Your task to perform on an android device: turn on bluetooth scan Image 0: 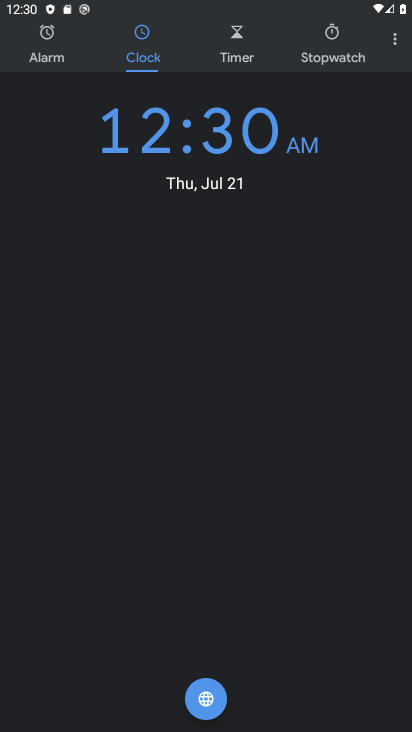
Step 0: press home button
Your task to perform on an android device: turn on bluetooth scan Image 1: 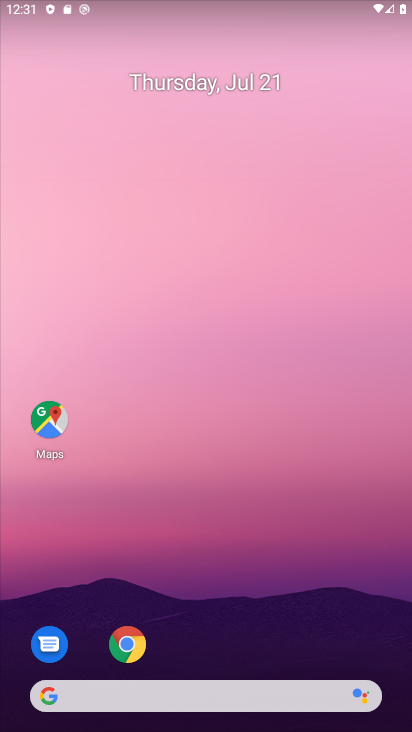
Step 1: drag from (255, 626) to (384, 4)
Your task to perform on an android device: turn on bluetooth scan Image 2: 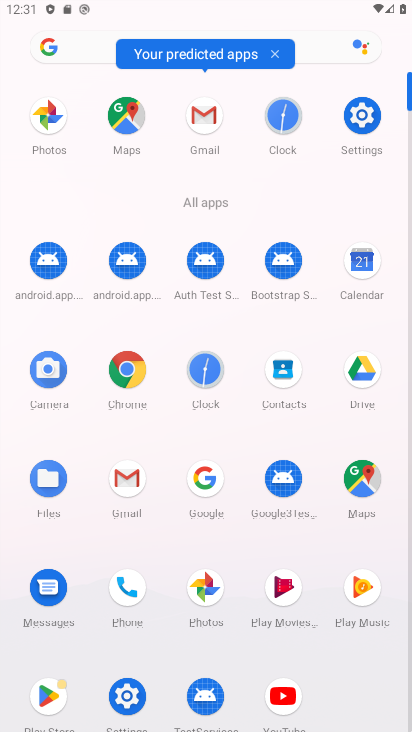
Step 2: click (362, 117)
Your task to perform on an android device: turn on bluetooth scan Image 3: 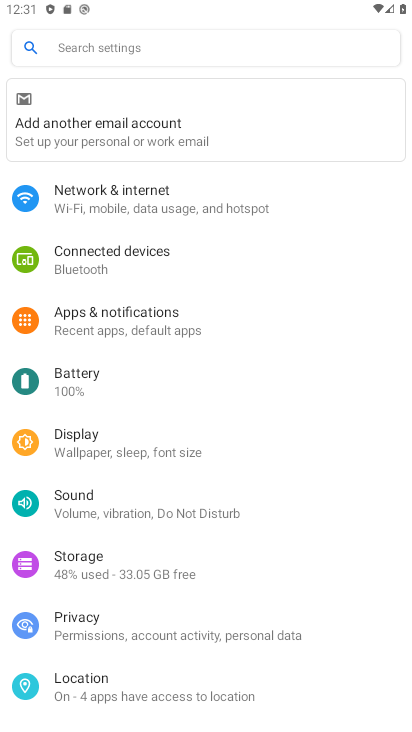
Step 3: click (82, 688)
Your task to perform on an android device: turn on bluetooth scan Image 4: 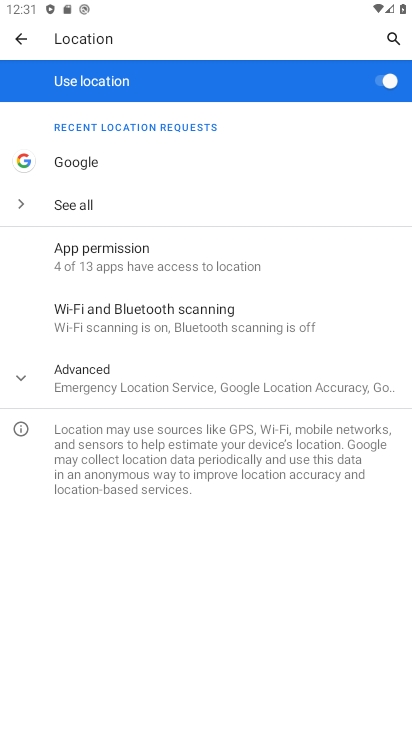
Step 4: click (200, 331)
Your task to perform on an android device: turn on bluetooth scan Image 5: 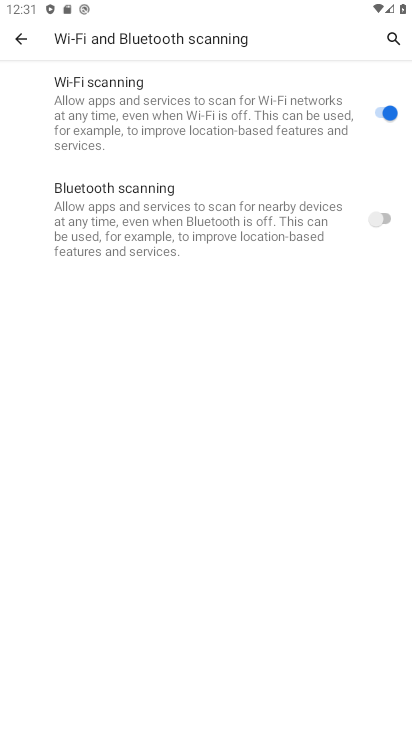
Step 5: click (218, 232)
Your task to perform on an android device: turn on bluetooth scan Image 6: 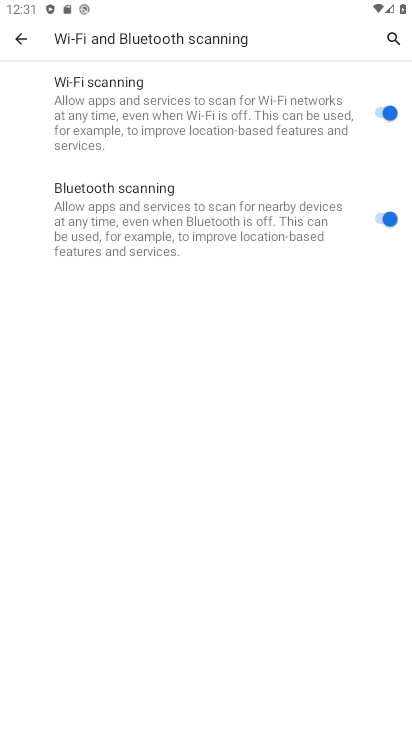
Step 6: task complete